Your task to perform on an android device: Go to accessibility settings Image 0: 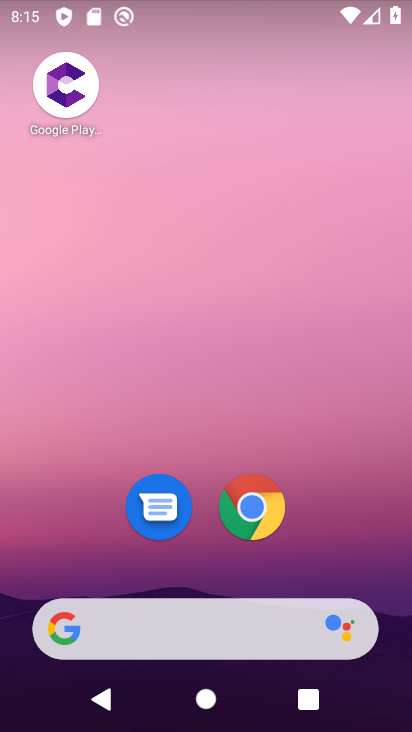
Step 0: drag from (241, 720) to (240, 96)
Your task to perform on an android device: Go to accessibility settings Image 1: 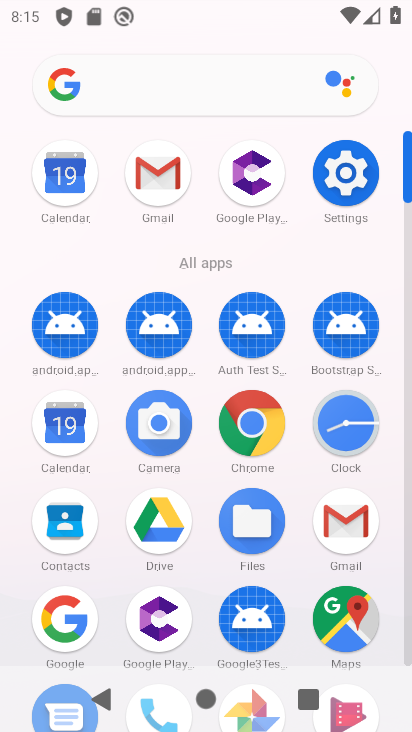
Step 1: click (334, 177)
Your task to perform on an android device: Go to accessibility settings Image 2: 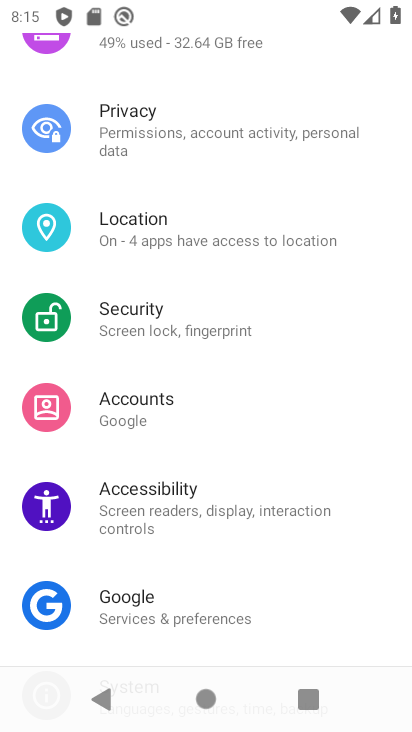
Step 2: drag from (183, 624) to (184, 149)
Your task to perform on an android device: Go to accessibility settings Image 3: 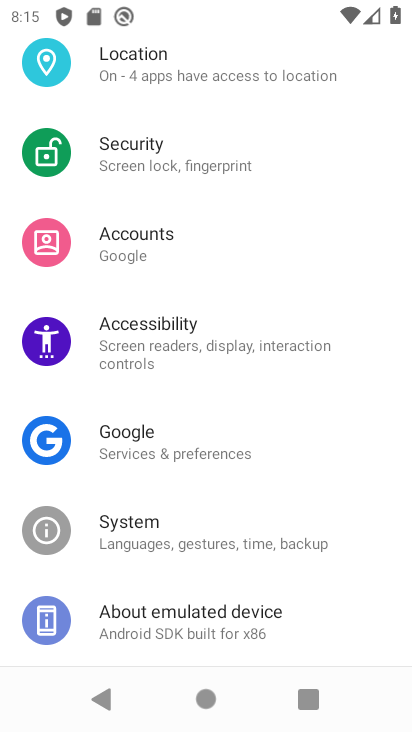
Step 3: click (148, 332)
Your task to perform on an android device: Go to accessibility settings Image 4: 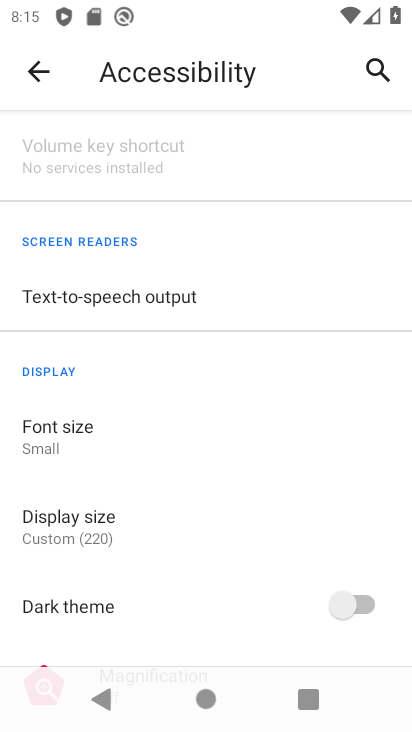
Step 4: task complete